Your task to perform on an android device: open app "Mercado Libre" (install if not already installed) Image 0: 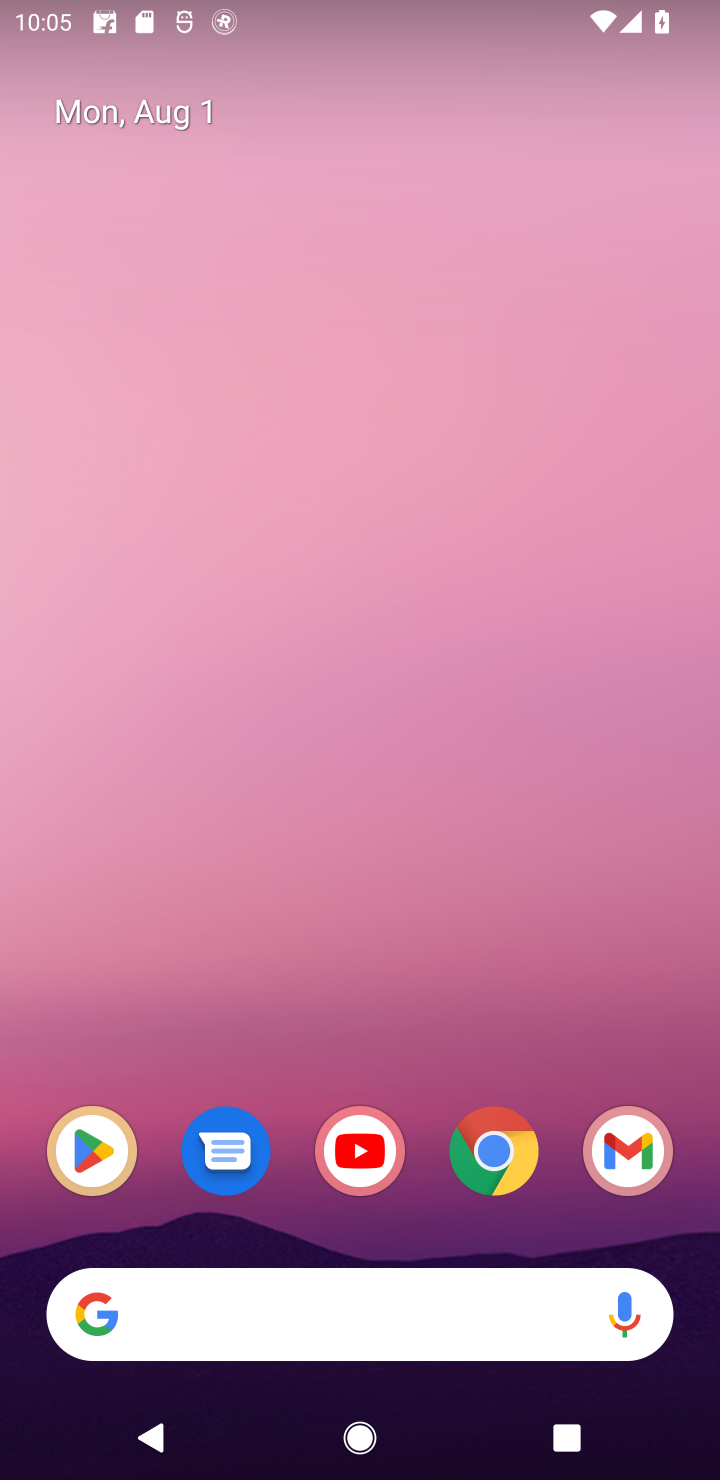
Step 0: click (109, 1173)
Your task to perform on an android device: open app "Mercado Libre" (install if not already installed) Image 1: 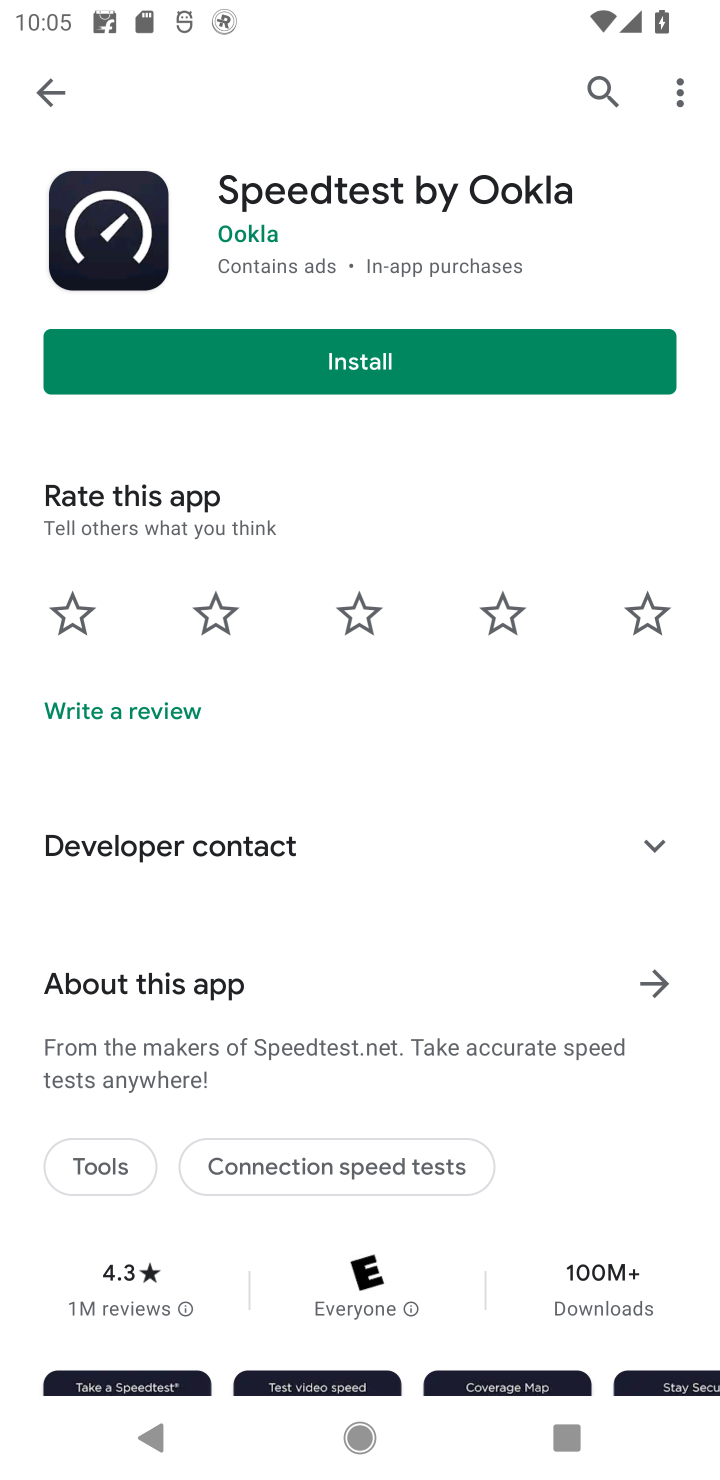
Step 1: click (601, 91)
Your task to perform on an android device: open app "Mercado Libre" (install if not already installed) Image 2: 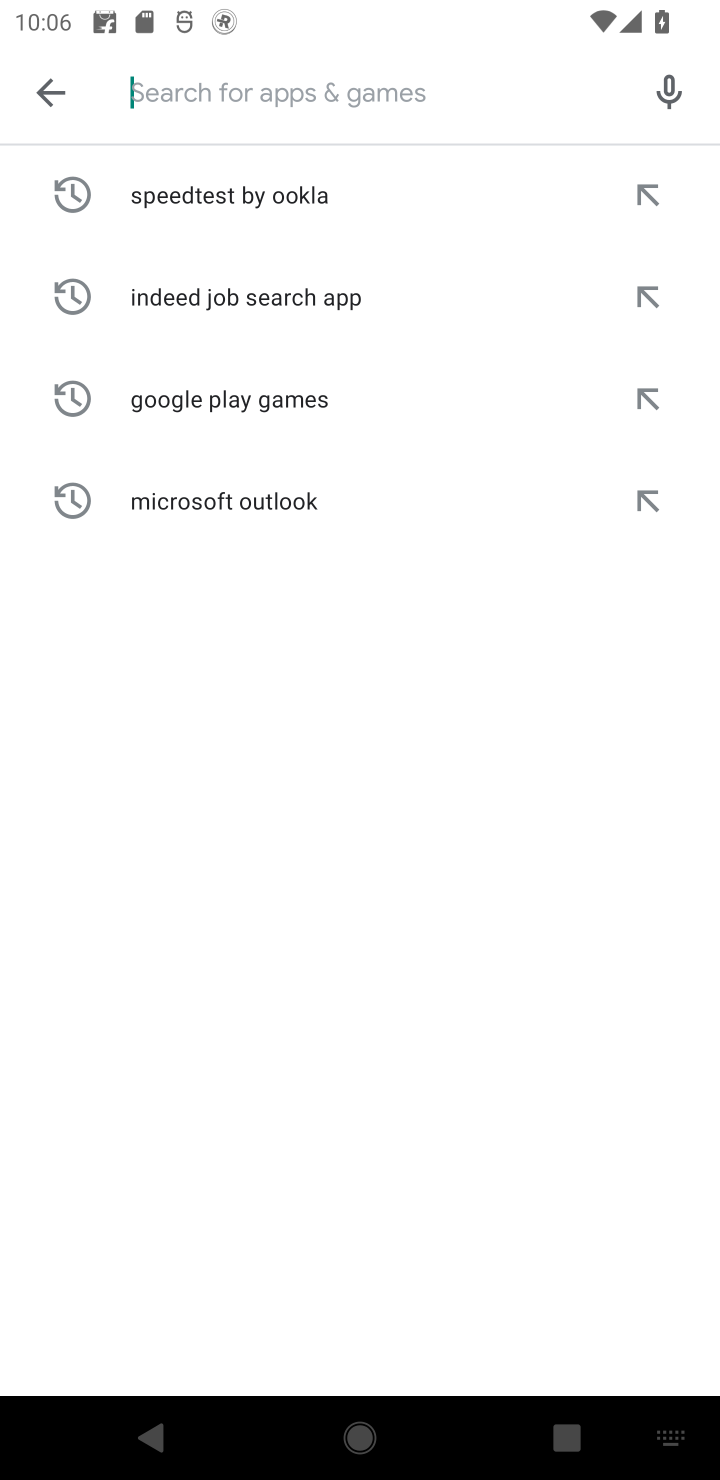
Step 2: type "Mercado Libre"
Your task to perform on an android device: open app "Mercado Libre" (install if not already installed) Image 3: 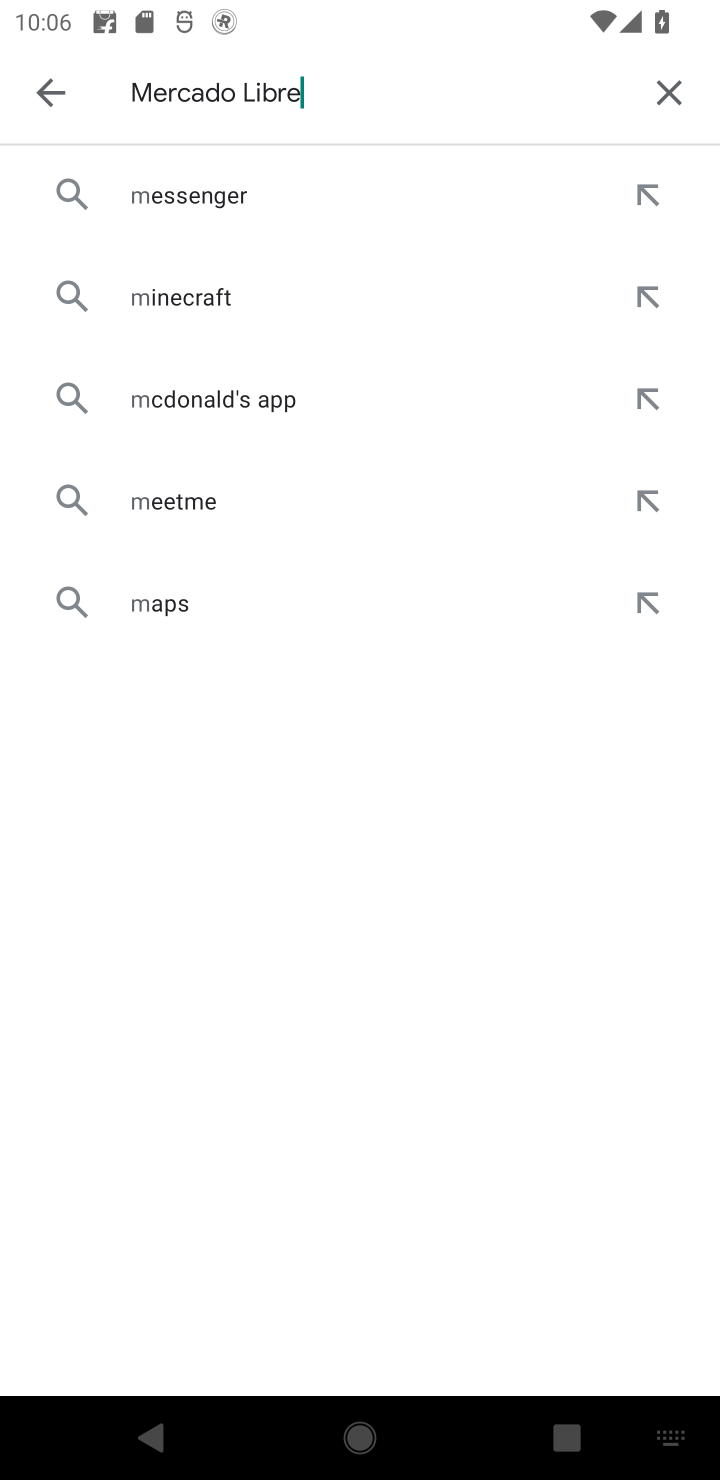
Step 3: type ""
Your task to perform on an android device: open app "Mercado Libre" (install if not already installed) Image 4: 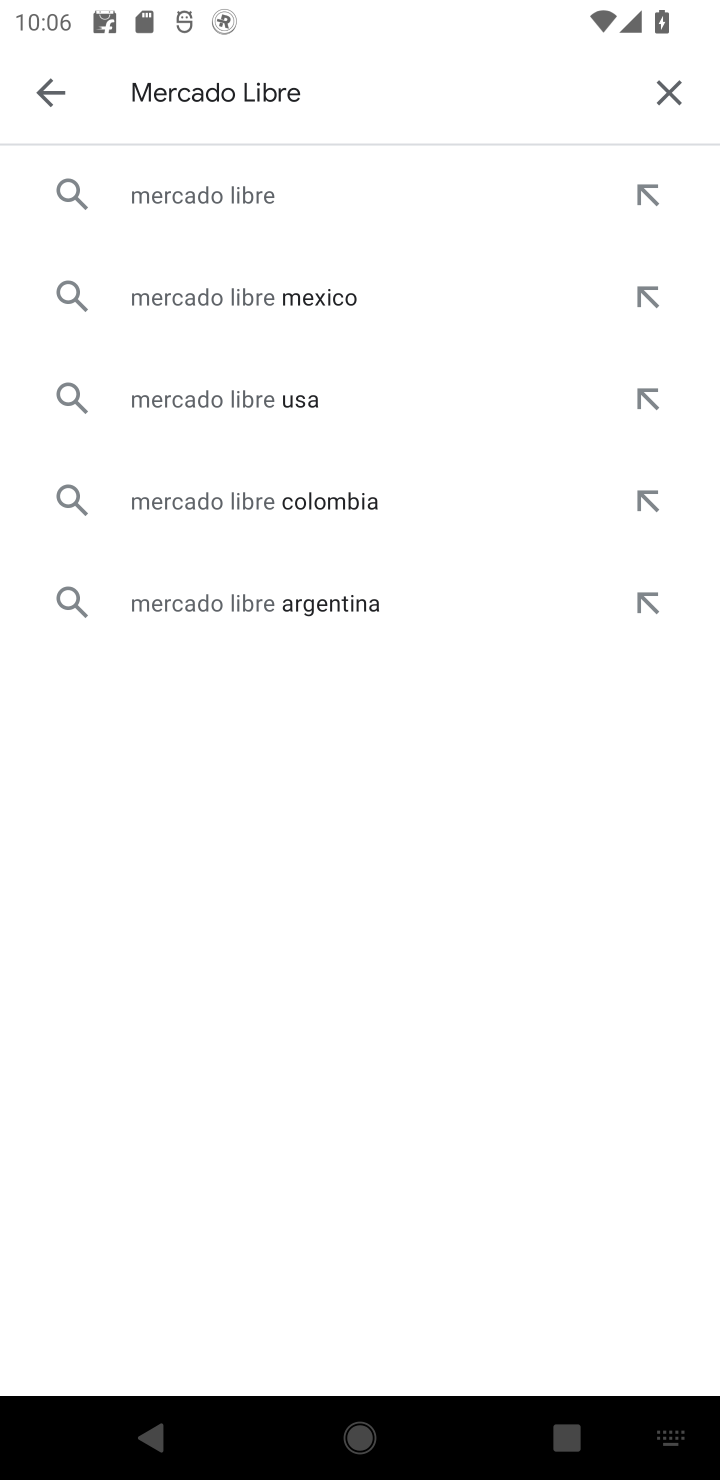
Step 4: click (305, 198)
Your task to perform on an android device: open app "Mercado Libre" (install if not already installed) Image 5: 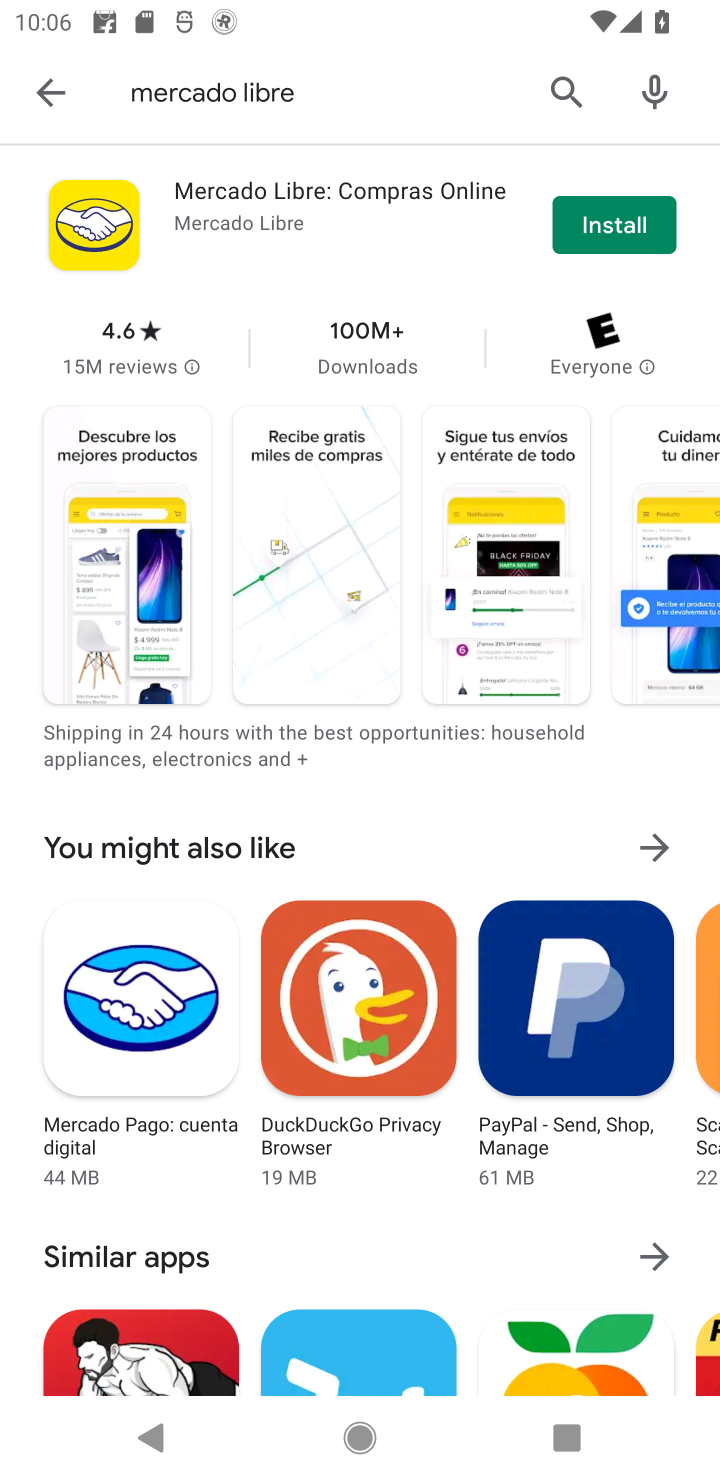
Step 5: click (613, 208)
Your task to perform on an android device: open app "Mercado Libre" (install if not already installed) Image 6: 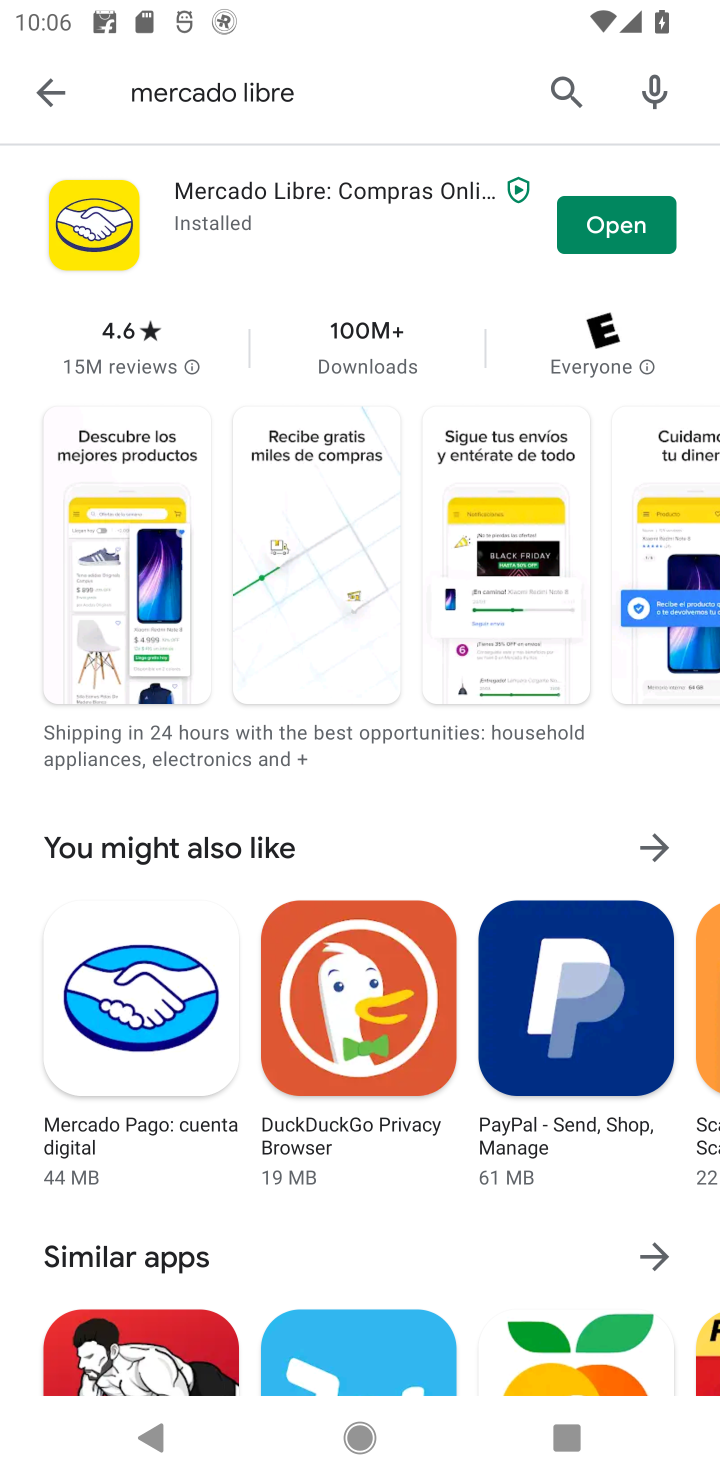
Step 6: click (613, 208)
Your task to perform on an android device: open app "Mercado Libre" (install if not already installed) Image 7: 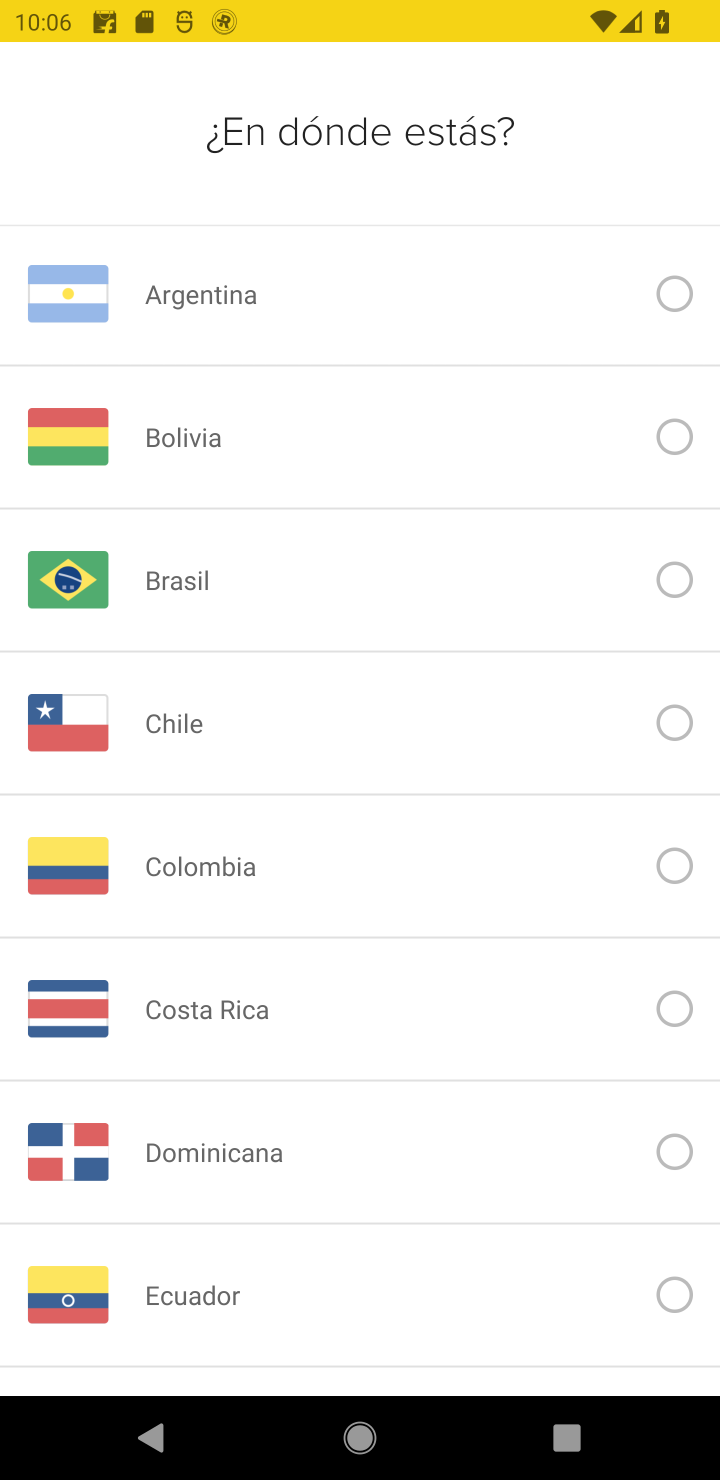
Step 7: task complete